Your task to perform on an android device: Open the web browser Image 0: 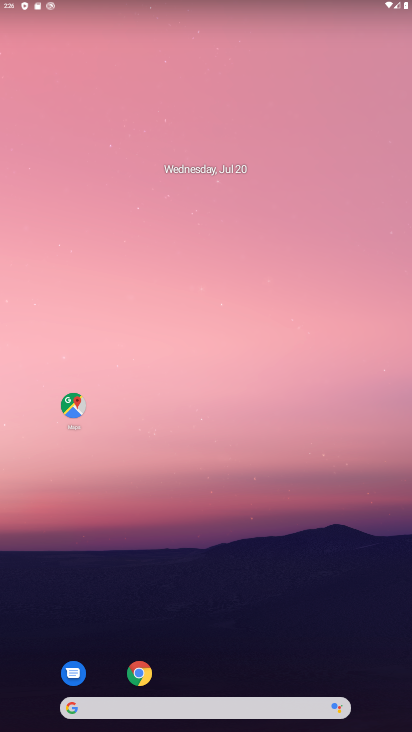
Step 0: click (144, 679)
Your task to perform on an android device: Open the web browser Image 1: 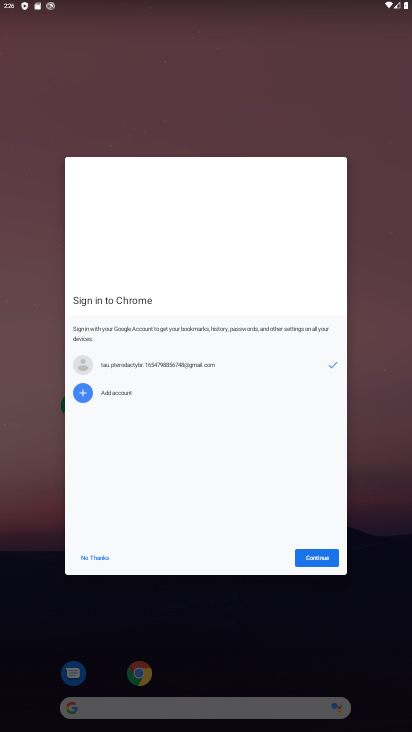
Step 1: click (328, 562)
Your task to perform on an android device: Open the web browser Image 2: 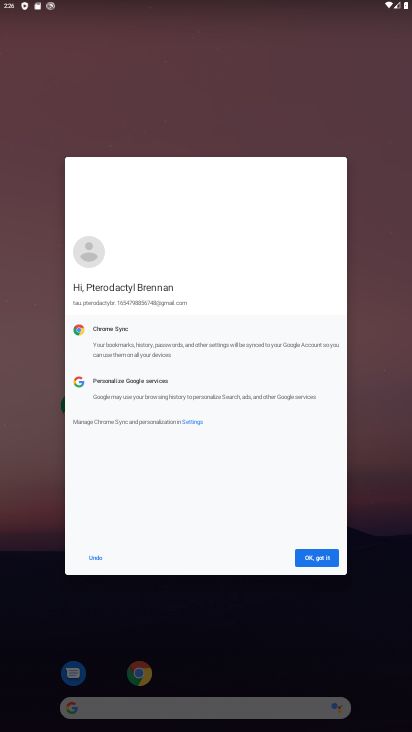
Step 2: click (328, 562)
Your task to perform on an android device: Open the web browser Image 3: 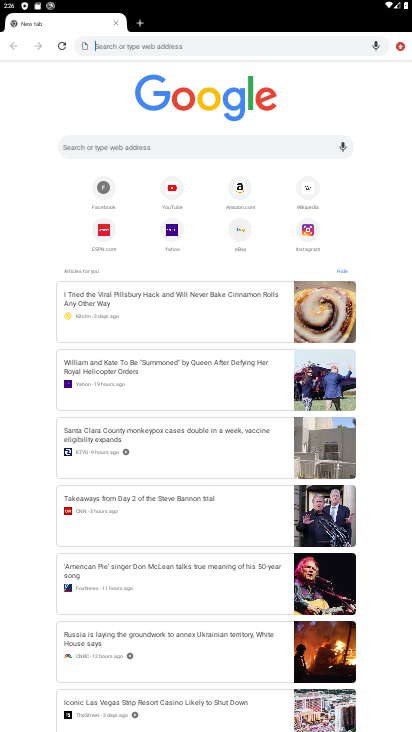
Step 3: task complete